Your task to perform on an android device: Turn off the flashlight Image 0: 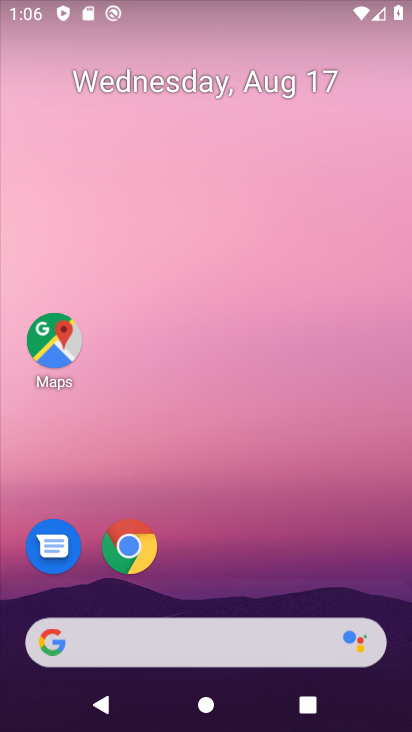
Step 0: drag from (260, 554) to (303, 15)
Your task to perform on an android device: Turn off the flashlight Image 1: 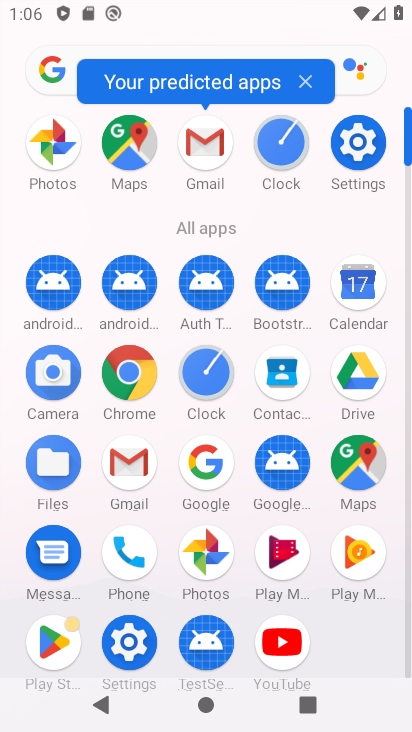
Step 1: click (358, 141)
Your task to perform on an android device: Turn off the flashlight Image 2: 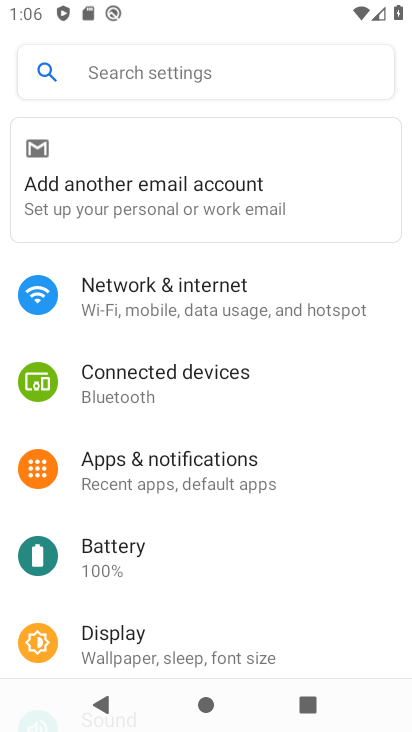
Step 2: click (127, 632)
Your task to perform on an android device: Turn off the flashlight Image 3: 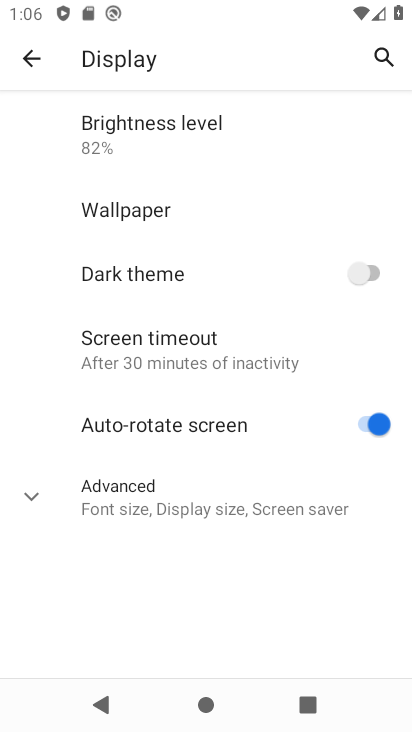
Step 3: task complete